Your task to perform on an android device: Go to ESPN.com Image 0: 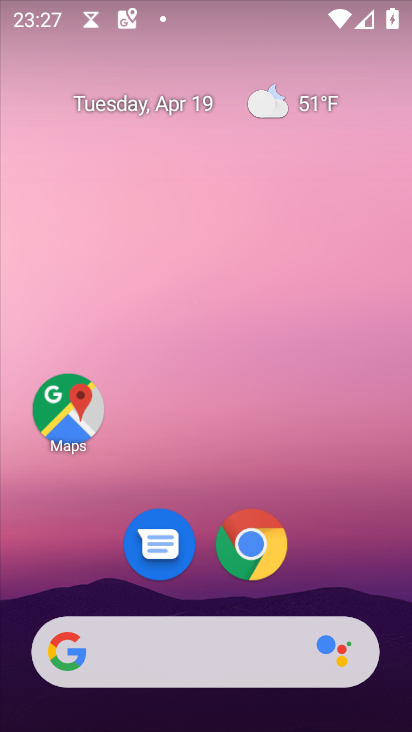
Step 0: click (256, 543)
Your task to perform on an android device: Go to ESPN.com Image 1: 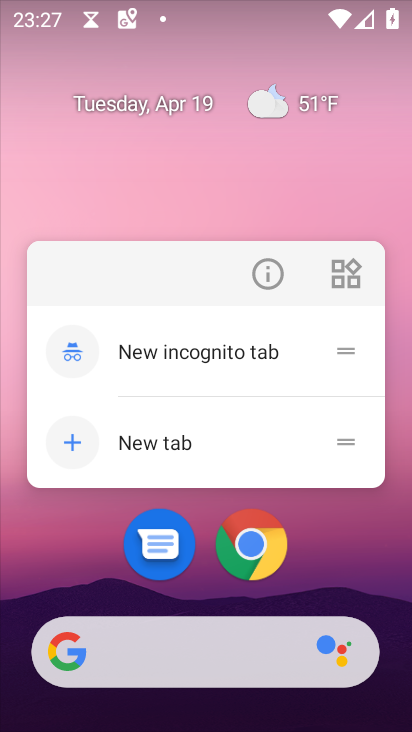
Step 1: click (256, 538)
Your task to perform on an android device: Go to ESPN.com Image 2: 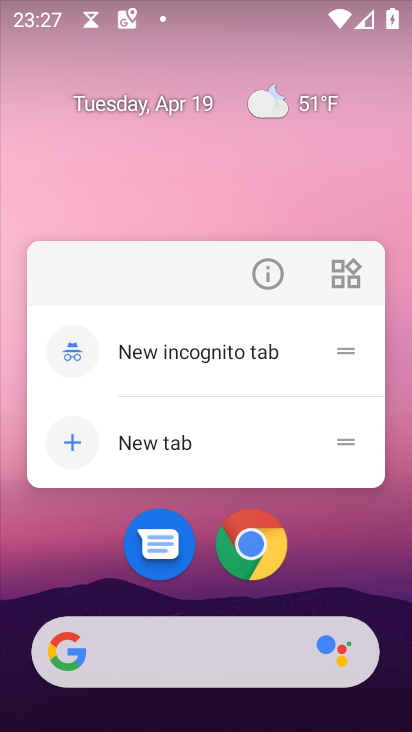
Step 2: click (253, 539)
Your task to perform on an android device: Go to ESPN.com Image 3: 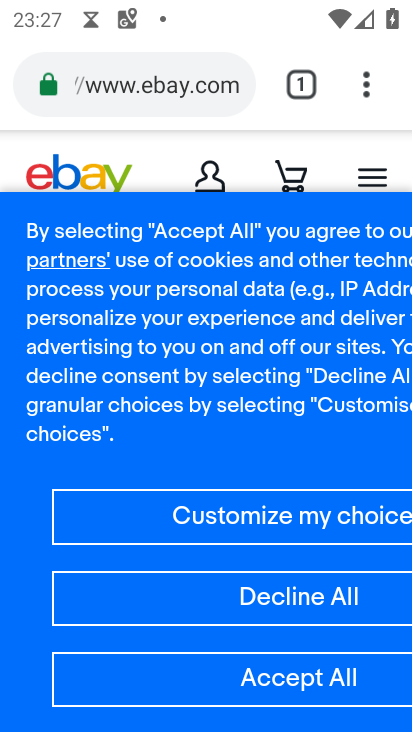
Step 3: click (157, 97)
Your task to perform on an android device: Go to ESPN.com Image 4: 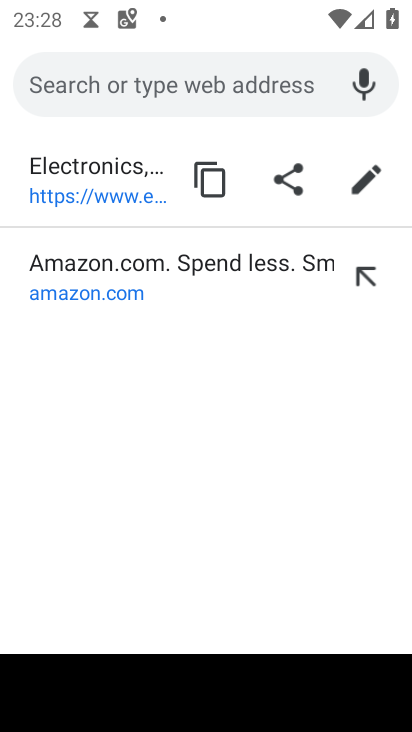
Step 4: type "espn.com"
Your task to perform on an android device: Go to ESPN.com Image 5: 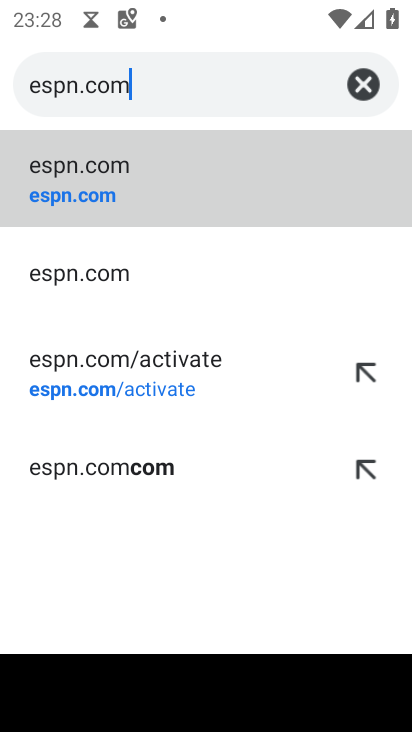
Step 5: click (48, 178)
Your task to perform on an android device: Go to ESPN.com Image 6: 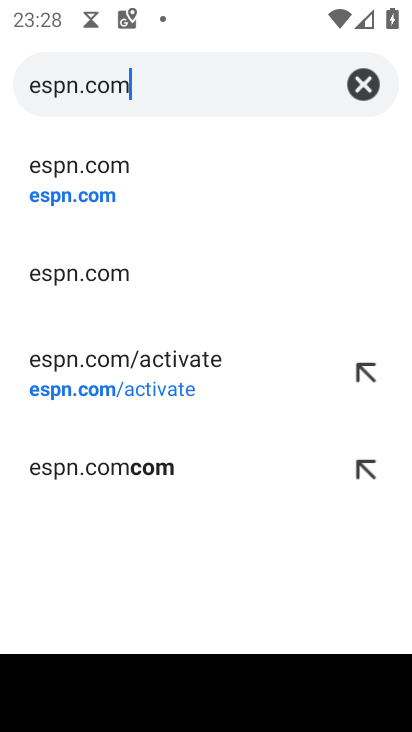
Step 6: click (45, 181)
Your task to perform on an android device: Go to ESPN.com Image 7: 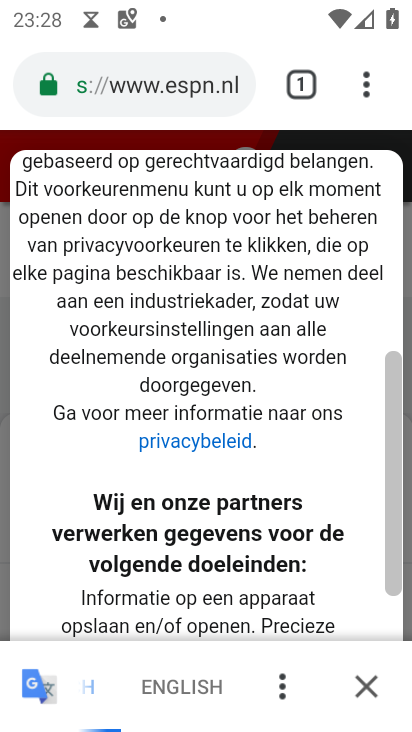
Step 7: task complete